Your task to perform on an android device: see tabs open on other devices in the chrome app Image 0: 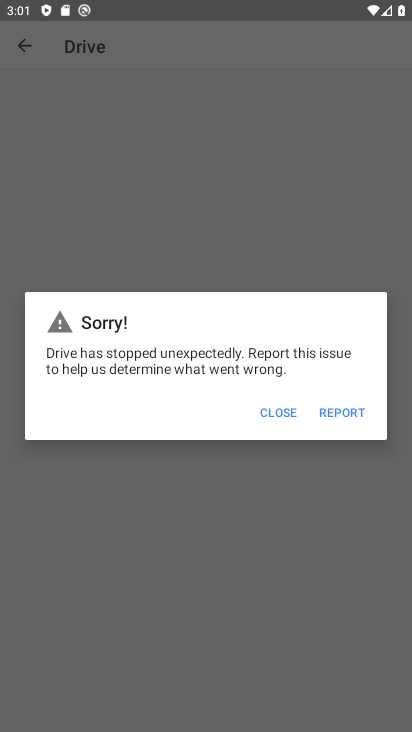
Step 0: press home button
Your task to perform on an android device: see tabs open on other devices in the chrome app Image 1: 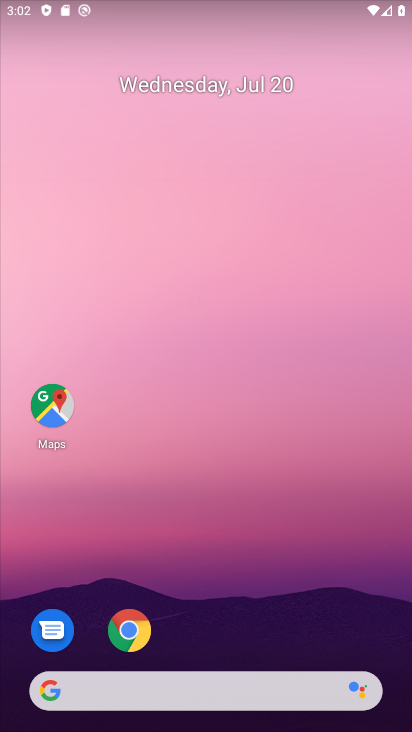
Step 1: drag from (232, 636) to (179, 514)
Your task to perform on an android device: see tabs open on other devices in the chrome app Image 2: 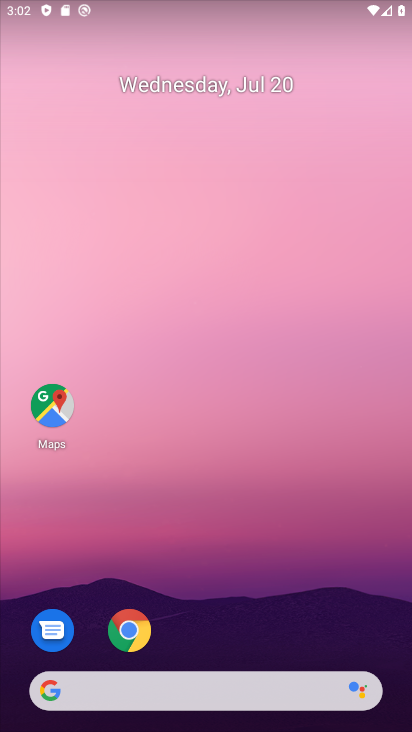
Step 2: drag from (221, 641) to (0, 221)
Your task to perform on an android device: see tabs open on other devices in the chrome app Image 3: 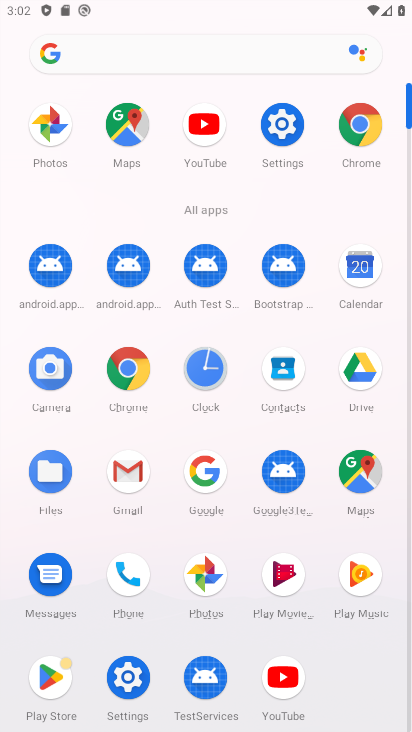
Step 3: click (367, 135)
Your task to perform on an android device: see tabs open on other devices in the chrome app Image 4: 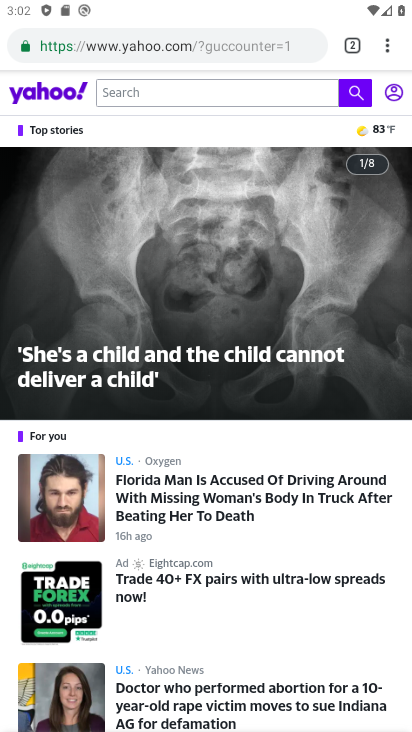
Step 4: task complete